Your task to perform on an android device: add a contact in the contacts app Image 0: 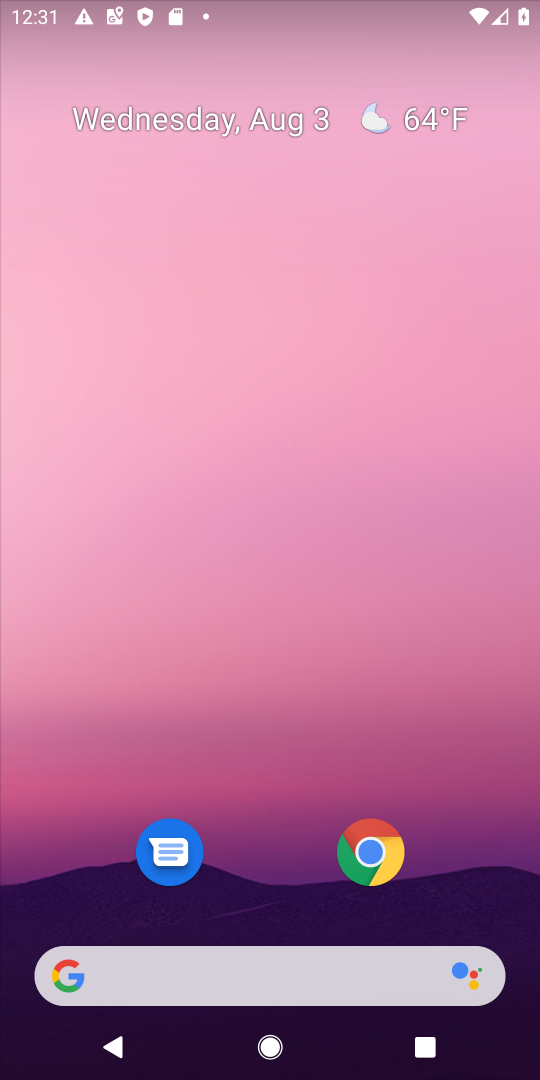
Step 0: drag from (511, 874) to (334, 126)
Your task to perform on an android device: add a contact in the contacts app Image 1: 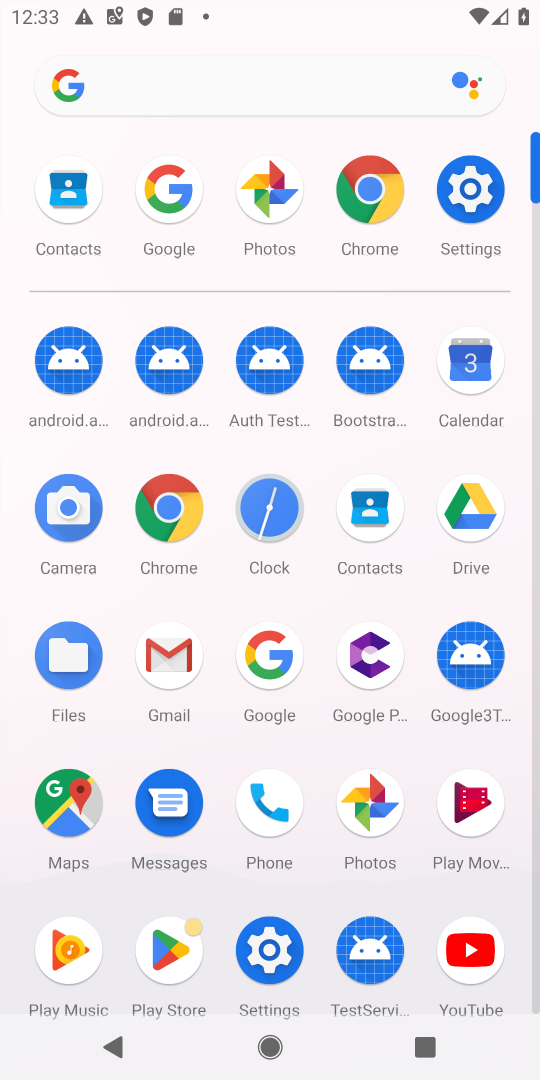
Step 1: click (357, 510)
Your task to perform on an android device: add a contact in the contacts app Image 2: 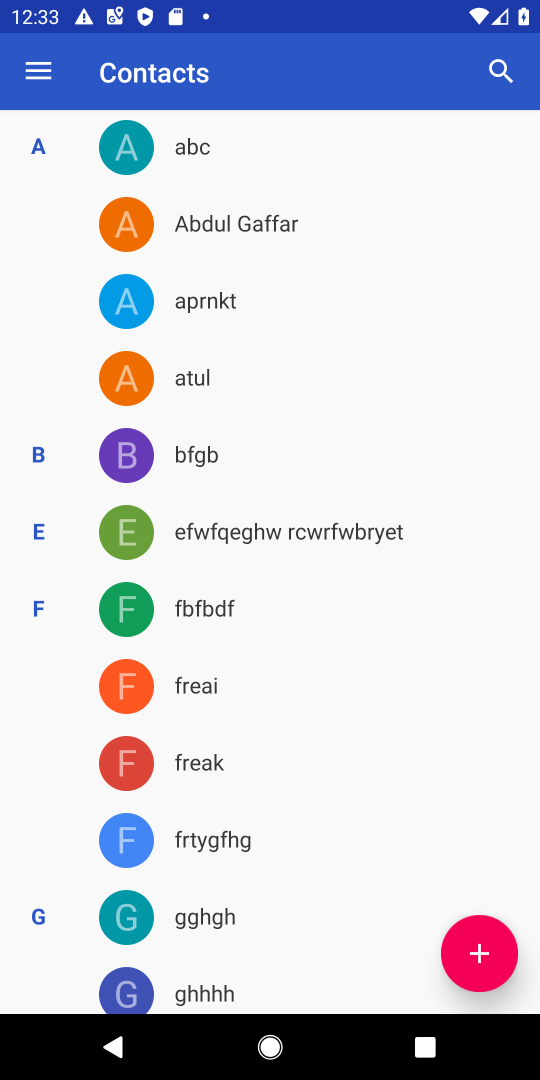
Step 2: click (465, 962)
Your task to perform on an android device: add a contact in the contacts app Image 3: 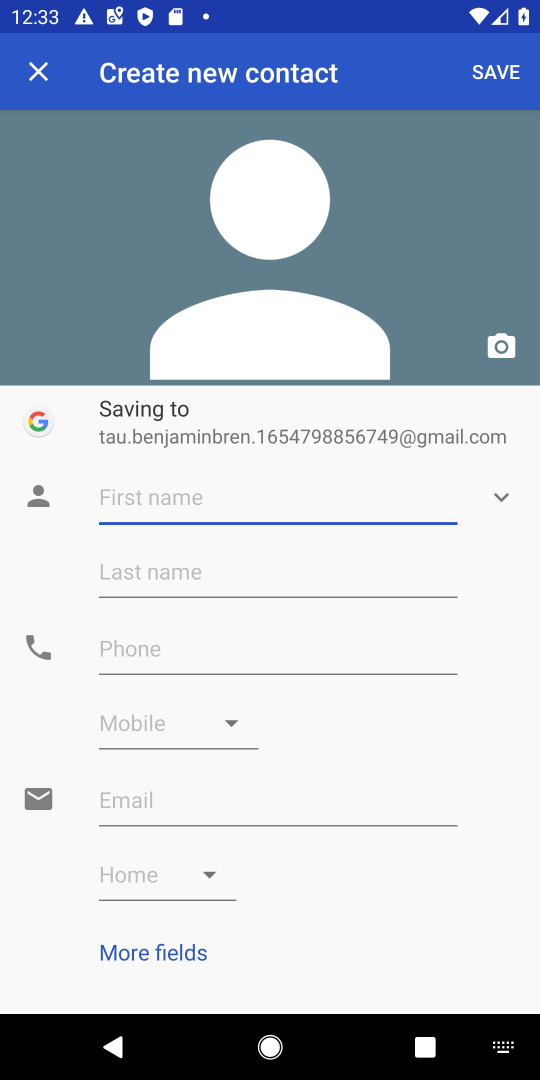
Step 3: type "erish"
Your task to perform on an android device: add a contact in the contacts app Image 4: 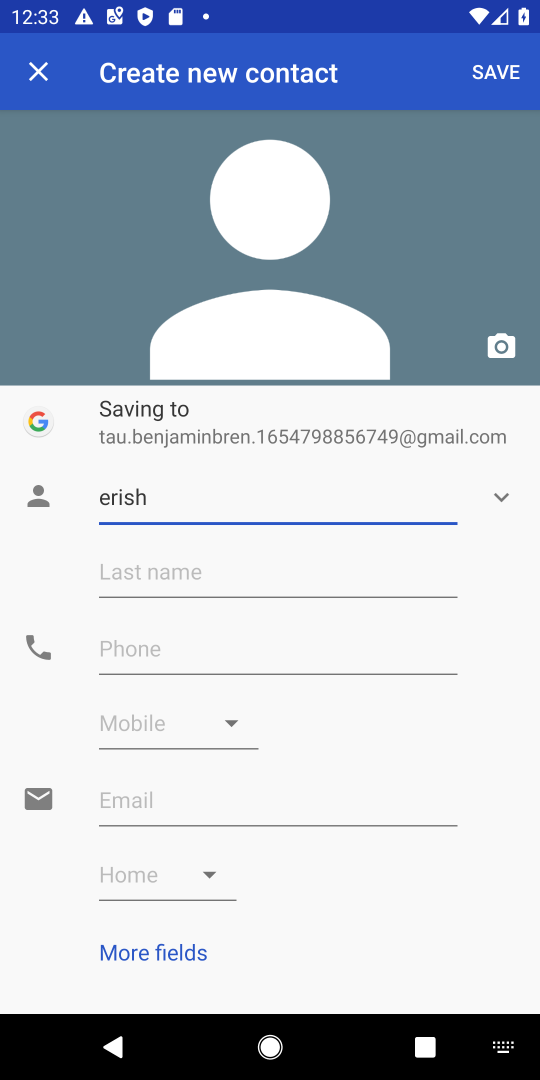
Step 4: click (491, 76)
Your task to perform on an android device: add a contact in the contacts app Image 5: 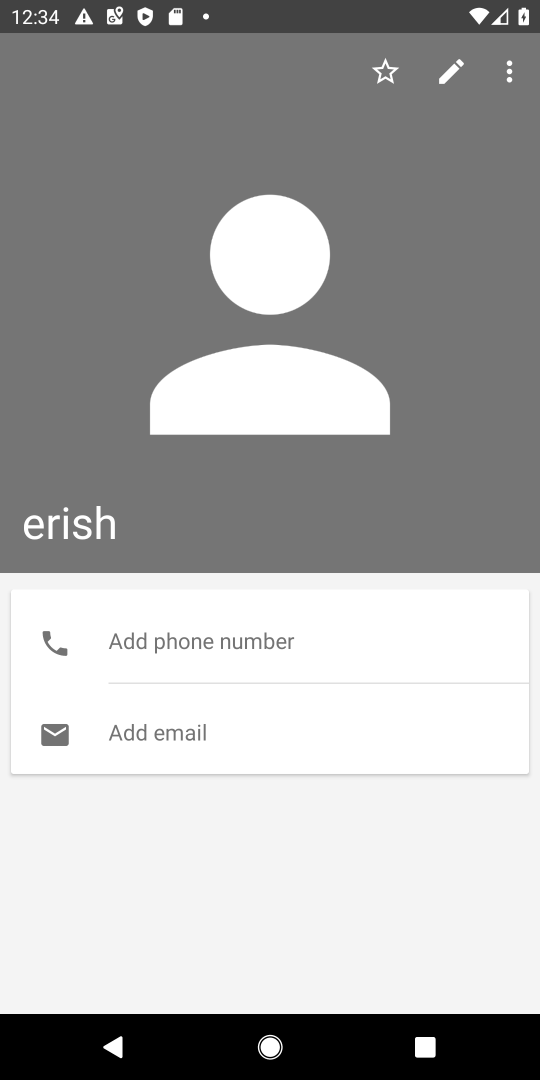
Step 5: task complete